Your task to perform on an android device: turn on the 24-hour format for clock Image 0: 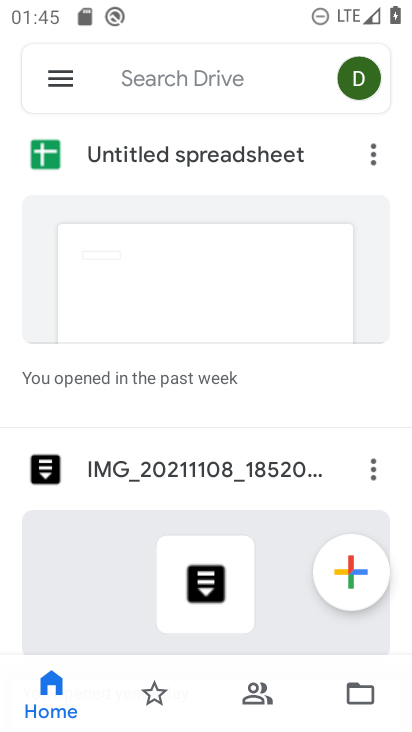
Step 0: press home button
Your task to perform on an android device: turn on the 24-hour format for clock Image 1: 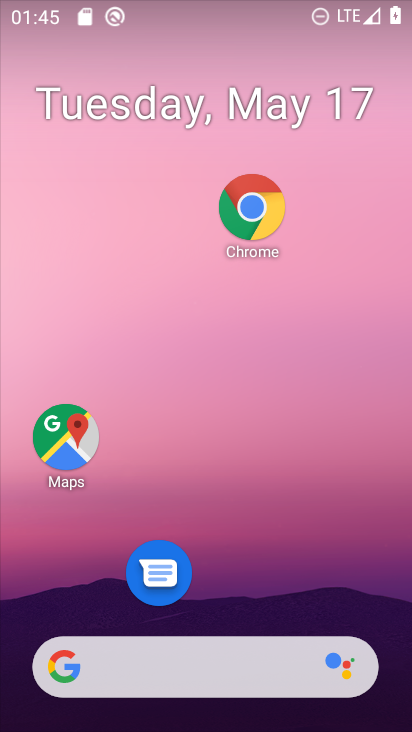
Step 1: drag from (302, 666) to (301, 42)
Your task to perform on an android device: turn on the 24-hour format for clock Image 2: 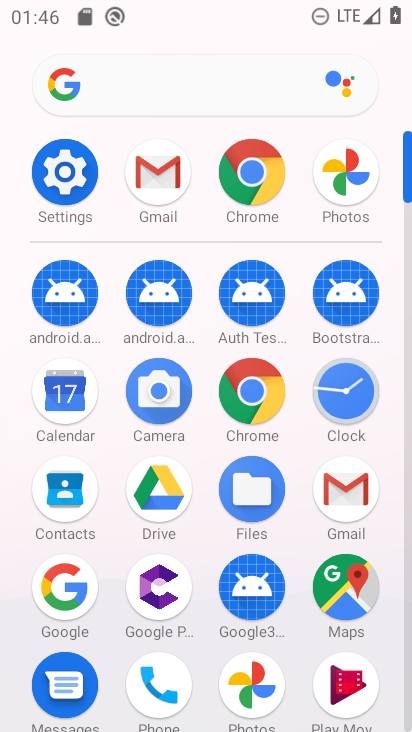
Step 2: click (340, 415)
Your task to perform on an android device: turn on the 24-hour format for clock Image 3: 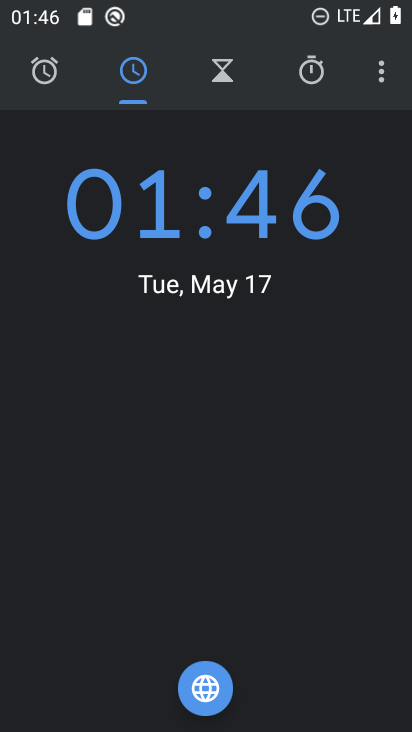
Step 3: click (373, 70)
Your task to perform on an android device: turn on the 24-hour format for clock Image 4: 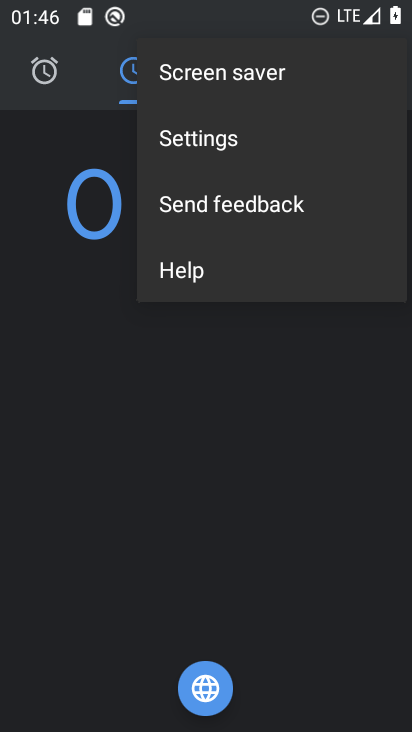
Step 4: click (257, 134)
Your task to perform on an android device: turn on the 24-hour format for clock Image 5: 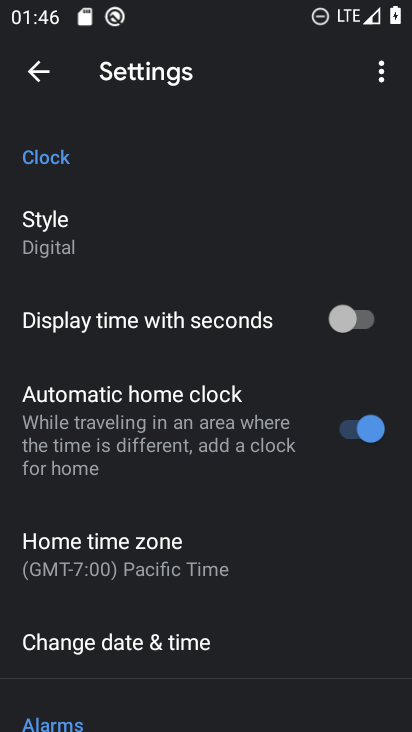
Step 5: click (174, 651)
Your task to perform on an android device: turn on the 24-hour format for clock Image 6: 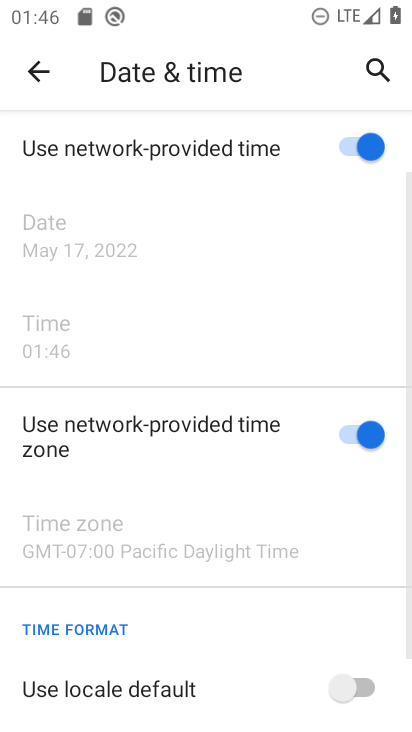
Step 6: task complete